Your task to perform on an android device: Is it going to rain this weekend? Image 0: 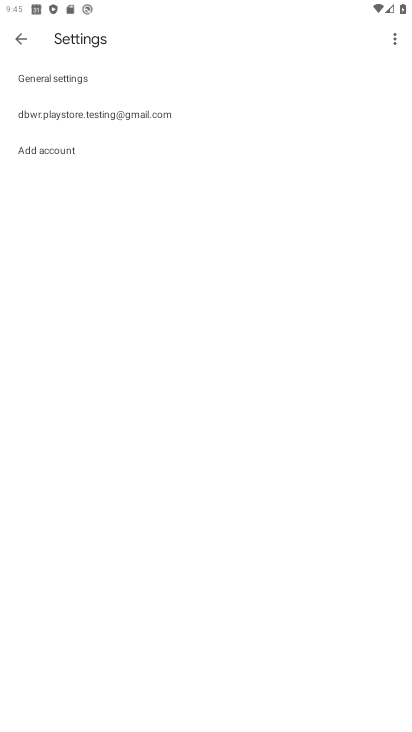
Step 0: press back button
Your task to perform on an android device: Is it going to rain this weekend? Image 1: 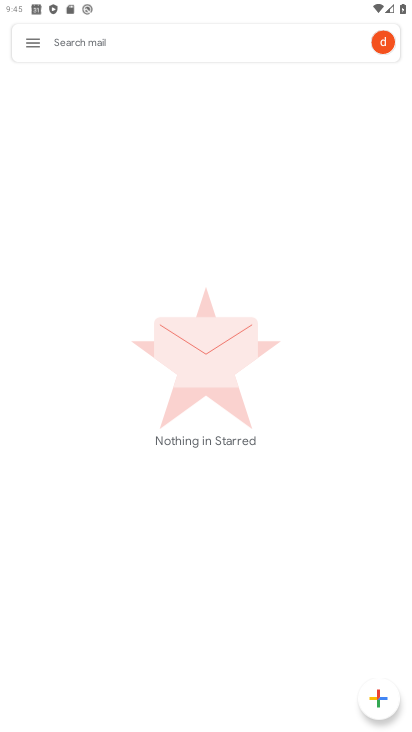
Step 1: press home button
Your task to perform on an android device: Is it going to rain this weekend? Image 2: 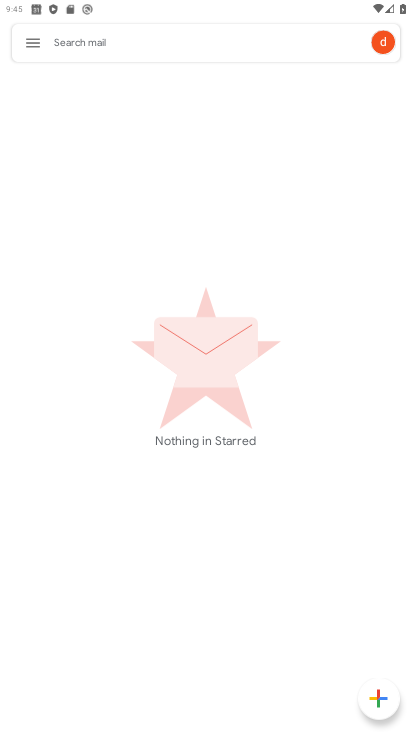
Step 2: press home button
Your task to perform on an android device: Is it going to rain this weekend? Image 3: 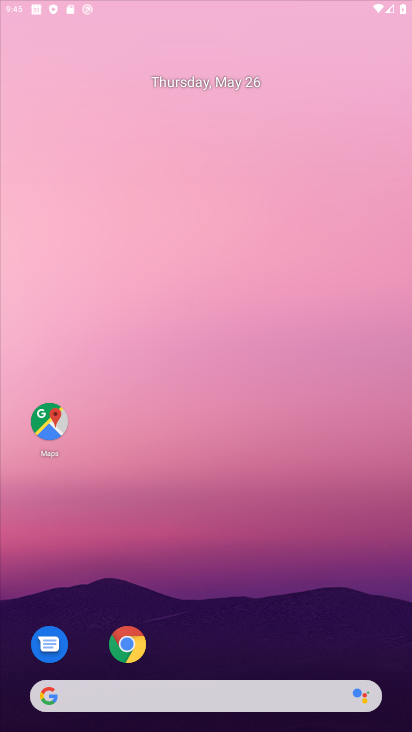
Step 3: press home button
Your task to perform on an android device: Is it going to rain this weekend? Image 4: 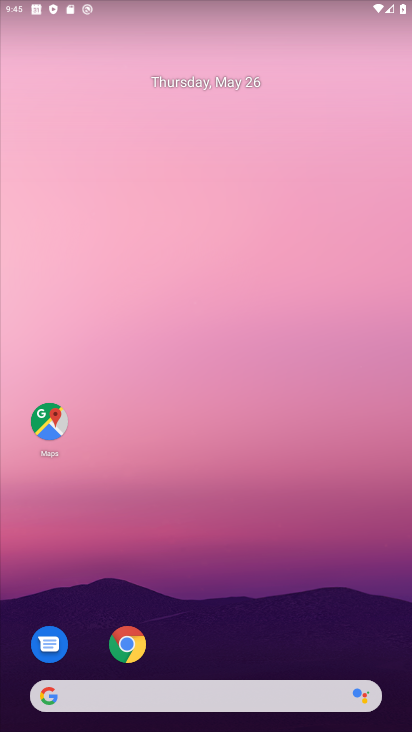
Step 4: drag from (245, 518) to (200, 218)
Your task to perform on an android device: Is it going to rain this weekend? Image 5: 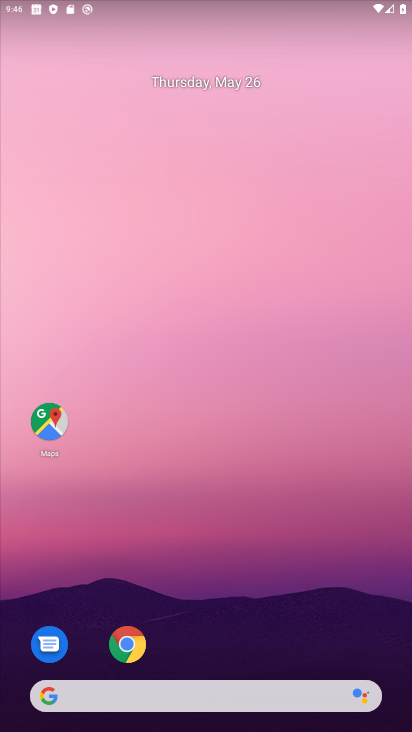
Step 5: drag from (7, 166) to (291, 286)
Your task to perform on an android device: Is it going to rain this weekend? Image 6: 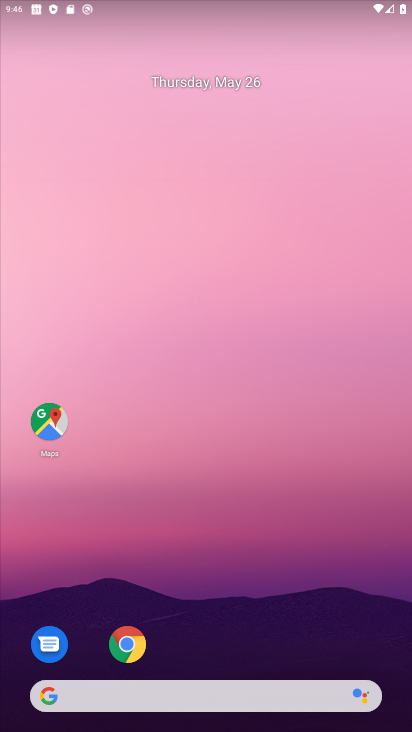
Step 6: drag from (72, 245) to (394, 471)
Your task to perform on an android device: Is it going to rain this weekend? Image 7: 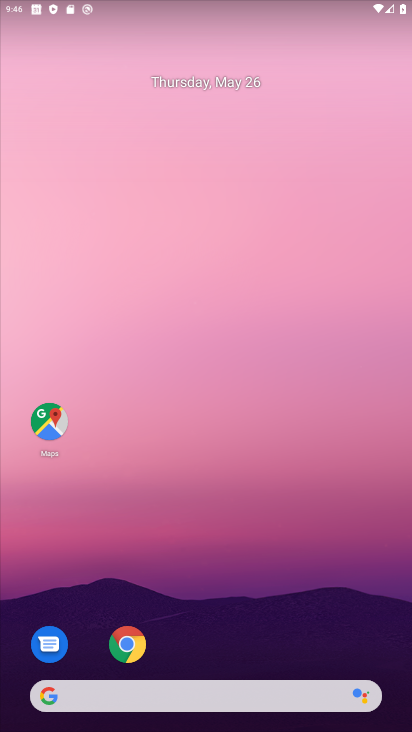
Step 7: drag from (4, 257) to (390, 515)
Your task to perform on an android device: Is it going to rain this weekend? Image 8: 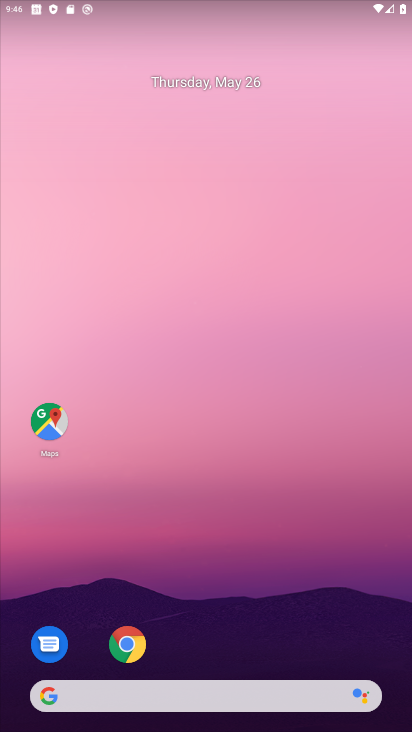
Step 8: drag from (0, 253) to (392, 621)
Your task to perform on an android device: Is it going to rain this weekend? Image 9: 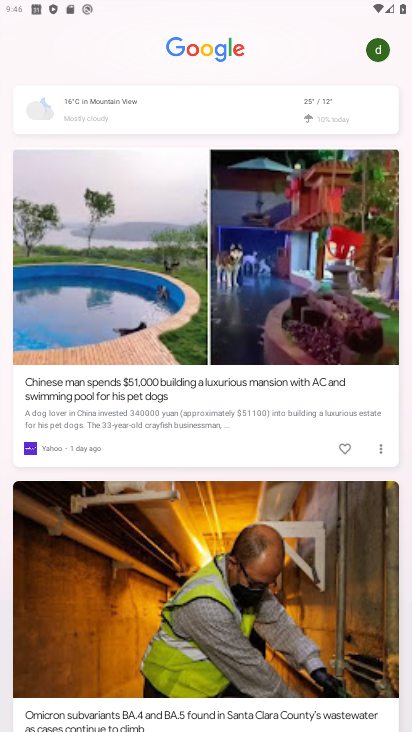
Step 9: click (145, 114)
Your task to perform on an android device: Is it going to rain this weekend? Image 10: 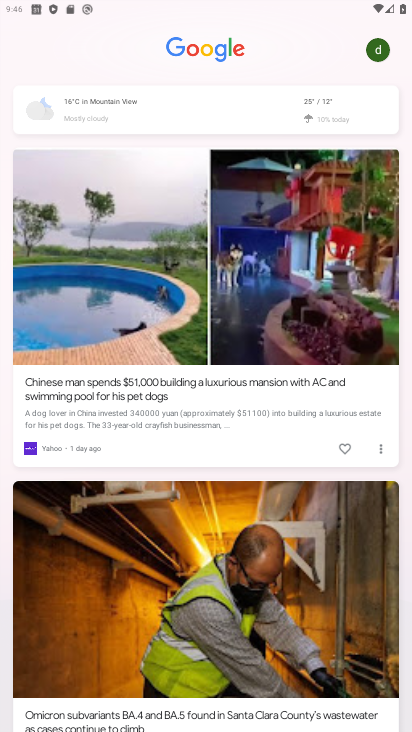
Step 10: click (149, 111)
Your task to perform on an android device: Is it going to rain this weekend? Image 11: 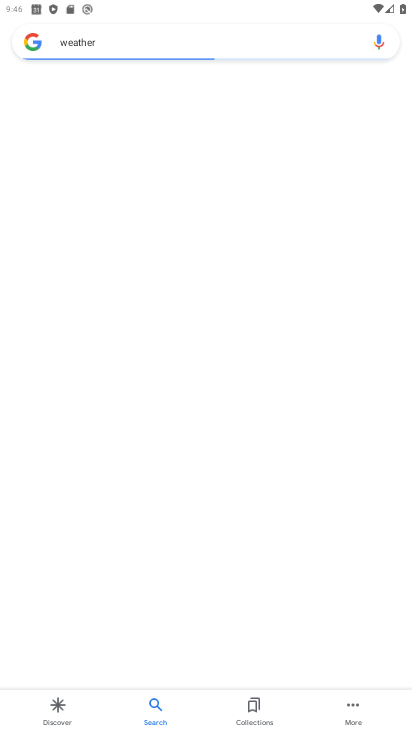
Step 11: click (161, 119)
Your task to perform on an android device: Is it going to rain this weekend? Image 12: 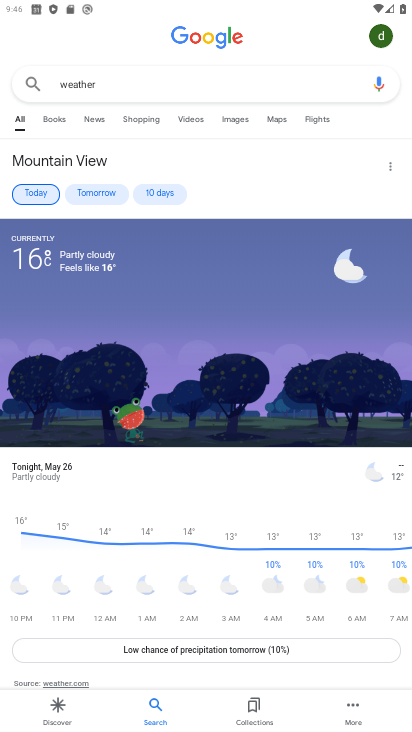
Step 12: task complete